Your task to perform on an android device: Open the web browser Image 0: 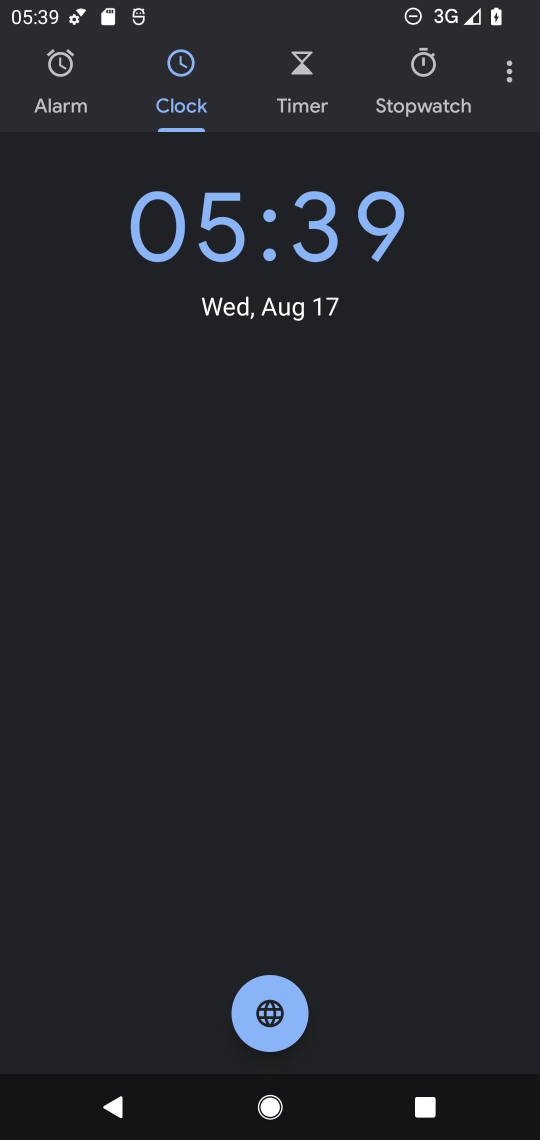
Step 0: press home button
Your task to perform on an android device: Open the web browser Image 1: 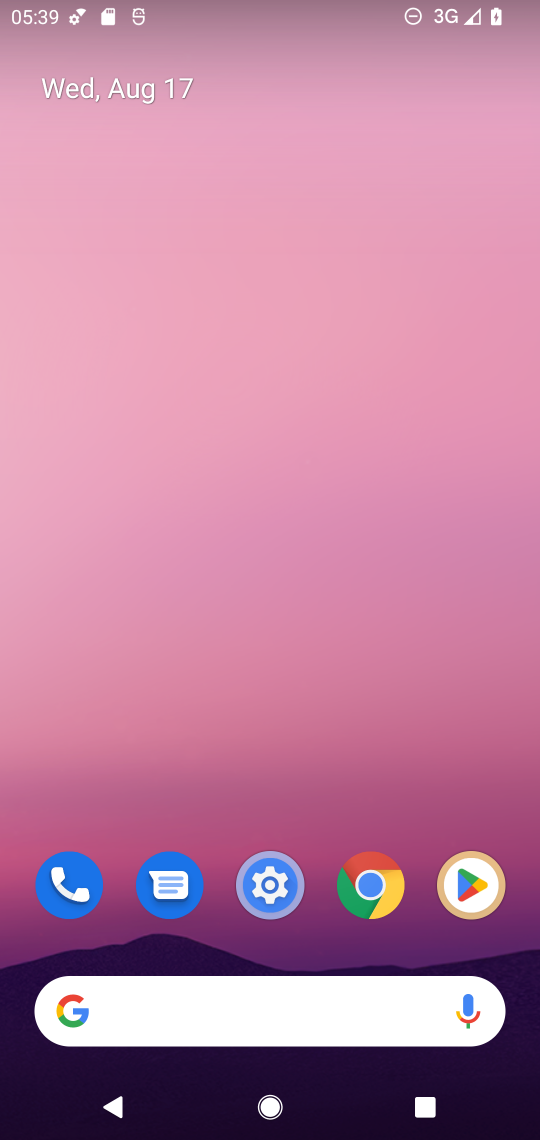
Step 1: drag from (307, 795) to (269, 168)
Your task to perform on an android device: Open the web browser Image 2: 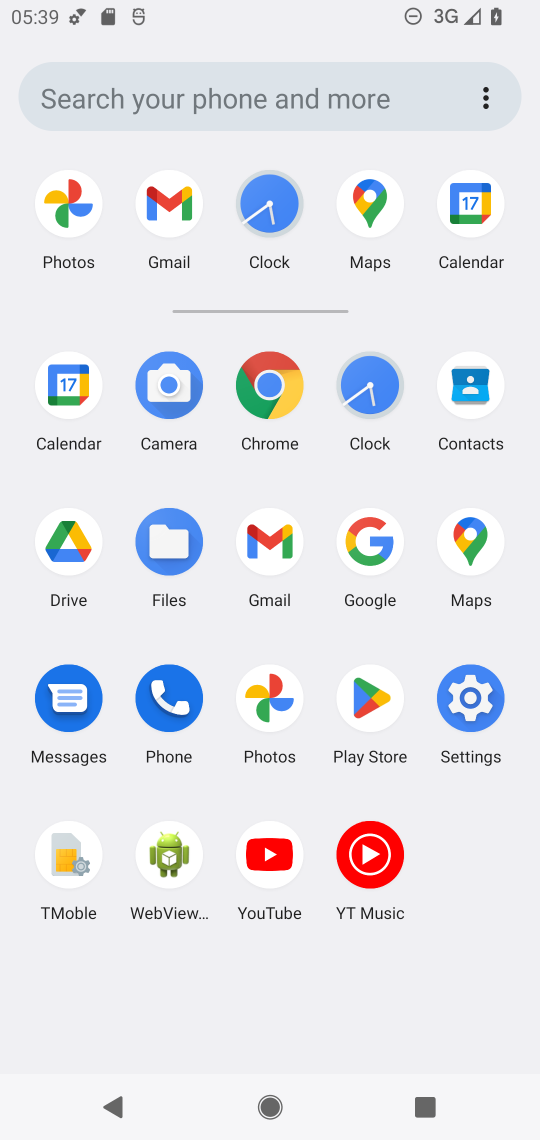
Step 2: click (271, 387)
Your task to perform on an android device: Open the web browser Image 3: 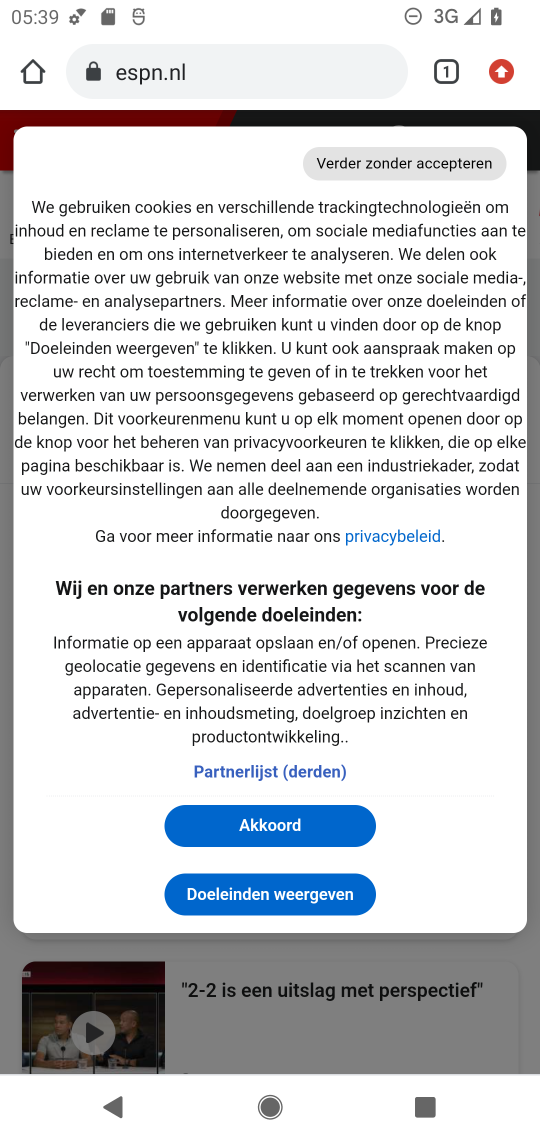
Step 3: task complete